Your task to perform on an android device: Open settings on Google Maps Image 0: 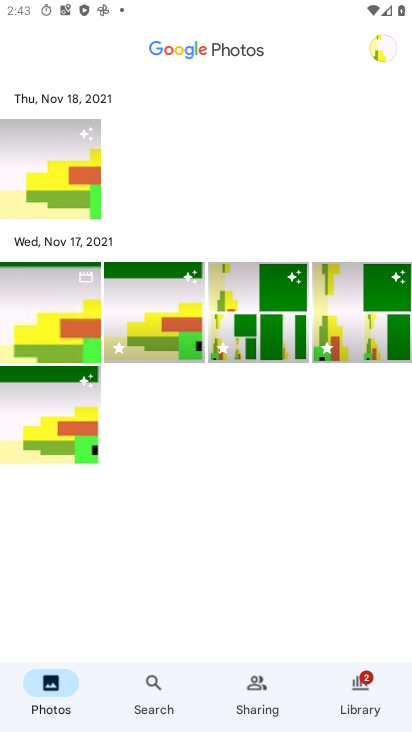
Step 0: press home button
Your task to perform on an android device: Open settings on Google Maps Image 1: 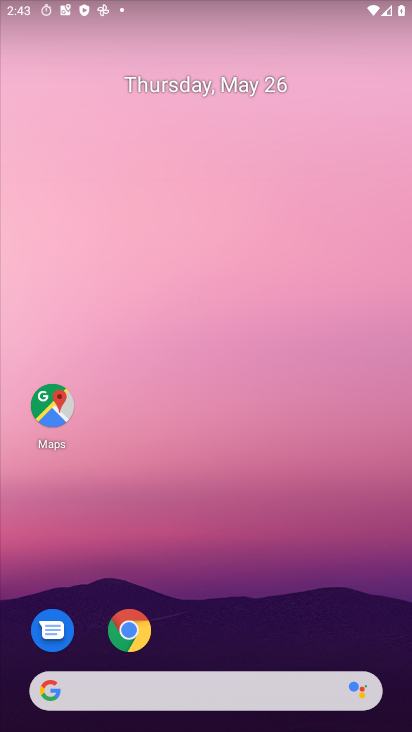
Step 1: click (60, 421)
Your task to perform on an android device: Open settings on Google Maps Image 2: 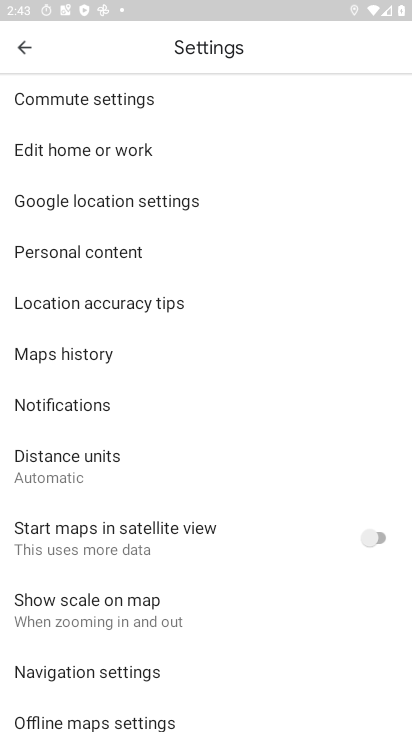
Step 2: task complete